Your task to perform on an android device: Search for vegetarian restaurants on Maps Image 0: 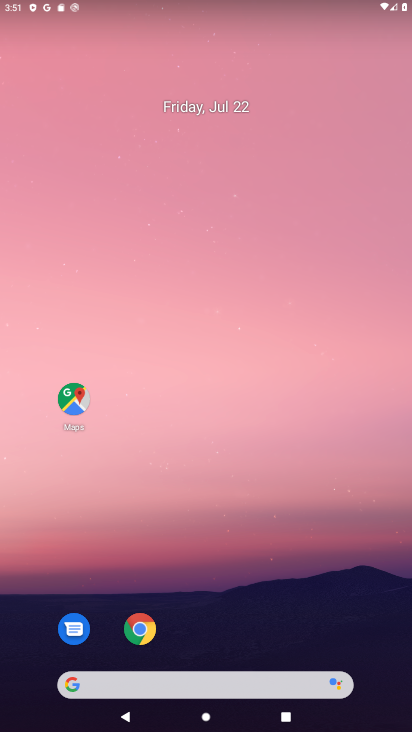
Step 0: drag from (260, 597) to (262, 77)
Your task to perform on an android device: Search for vegetarian restaurants on Maps Image 1: 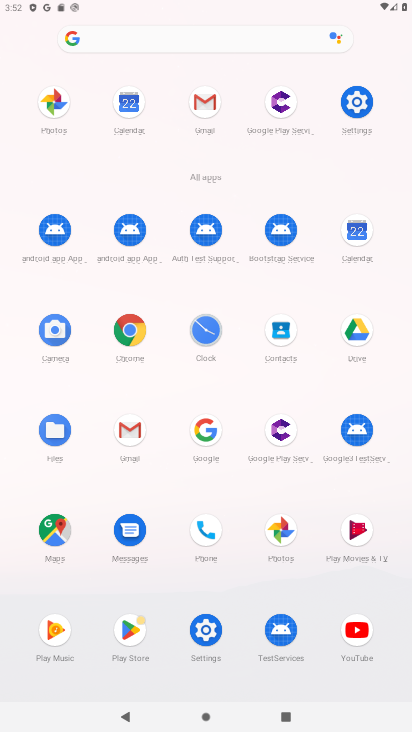
Step 1: drag from (237, 556) to (205, 177)
Your task to perform on an android device: Search for vegetarian restaurants on Maps Image 2: 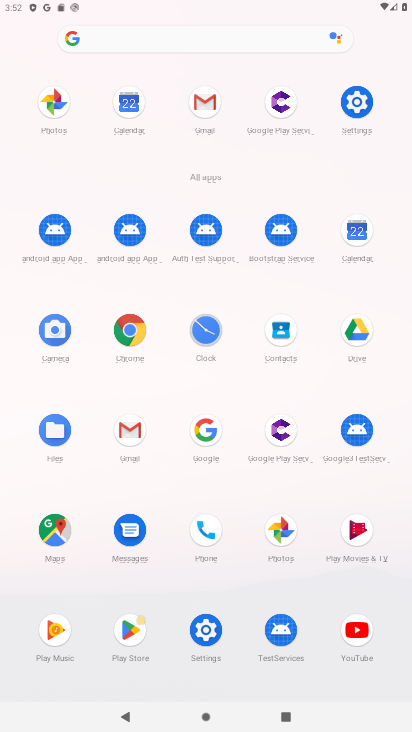
Step 2: click (126, 440)
Your task to perform on an android device: Search for vegetarian restaurants on Maps Image 3: 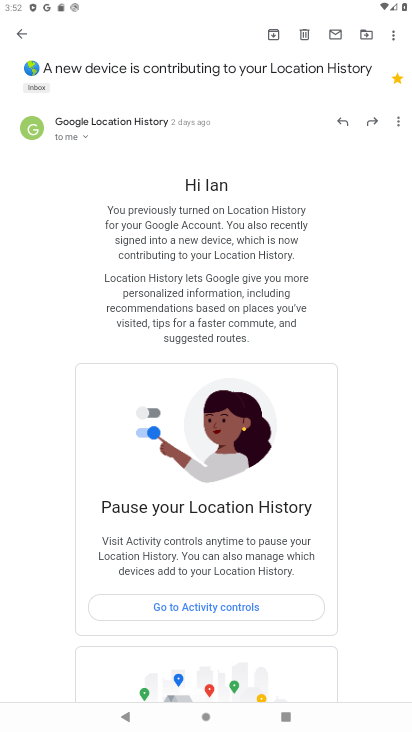
Step 3: click (24, 36)
Your task to perform on an android device: Search for vegetarian restaurants on Maps Image 4: 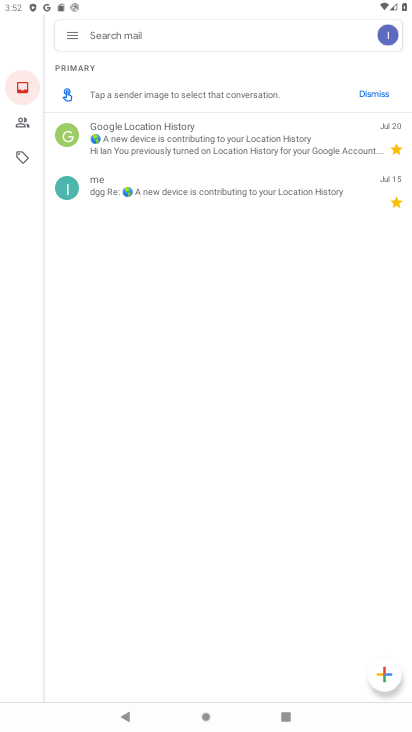
Step 4: press home button
Your task to perform on an android device: Search for vegetarian restaurants on Maps Image 5: 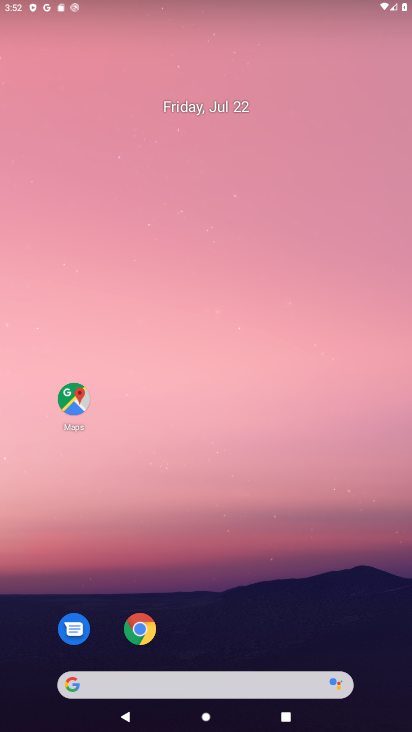
Step 5: drag from (175, 675) to (206, 81)
Your task to perform on an android device: Search for vegetarian restaurants on Maps Image 6: 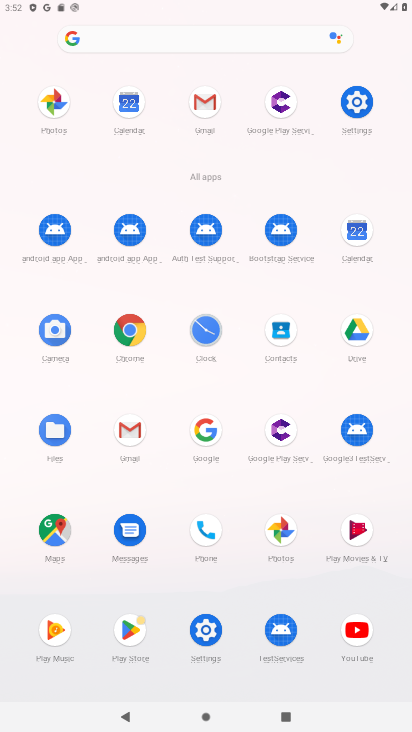
Step 6: click (49, 529)
Your task to perform on an android device: Search for vegetarian restaurants on Maps Image 7: 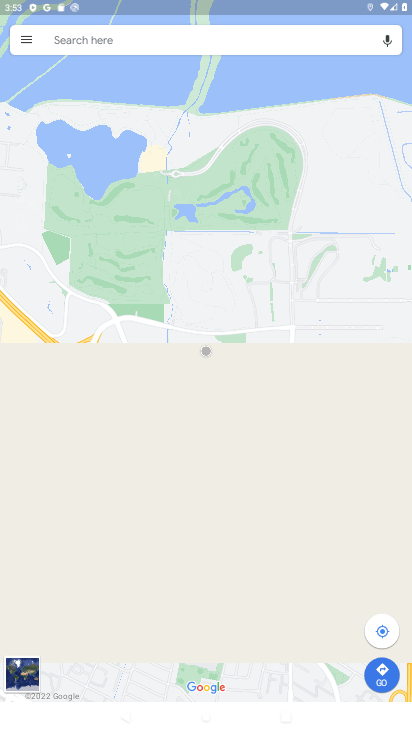
Step 7: click (155, 48)
Your task to perform on an android device: Search for vegetarian restaurants on Maps Image 8: 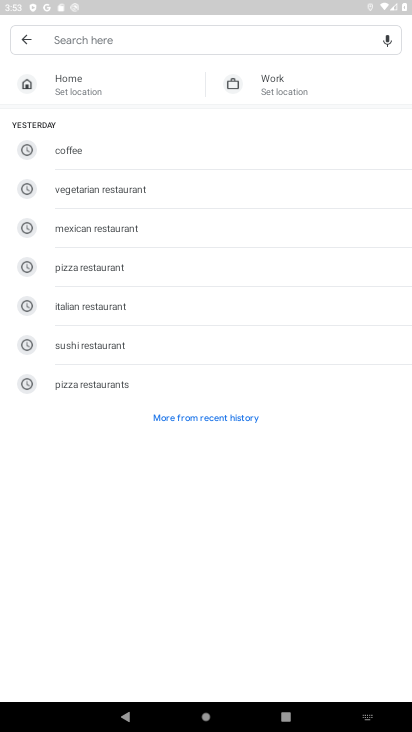
Step 8: click (78, 197)
Your task to perform on an android device: Search for vegetarian restaurants on Maps Image 9: 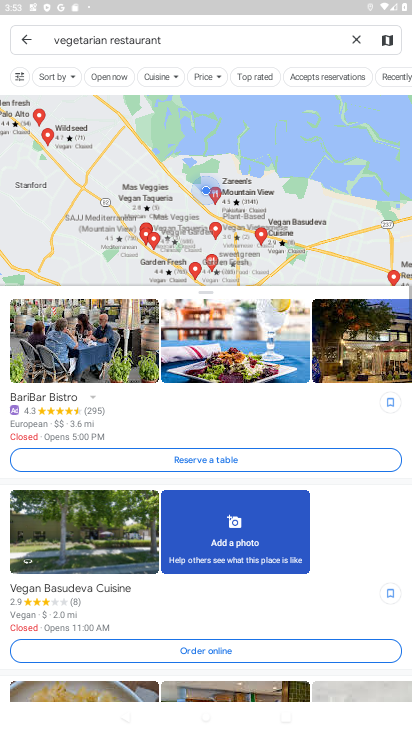
Step 9: task complete